Your task to perform on an android device: turn on the 24-hour format for clock Image 0: 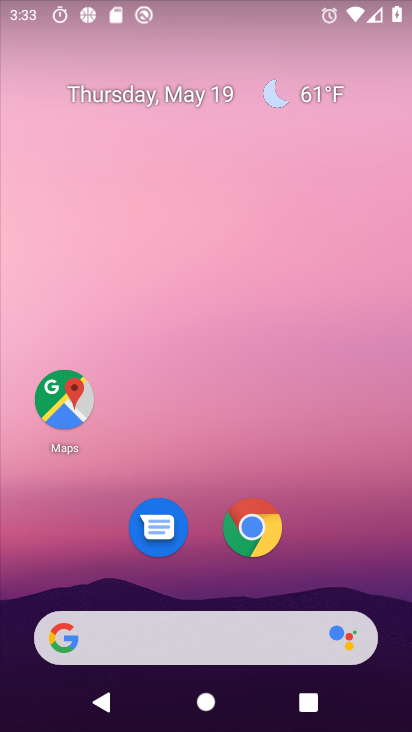
Step 0: drag from (172, 587) to (217, 110)
Your task to perform on an android device: turn on the 24-hour format for clock Image 1: 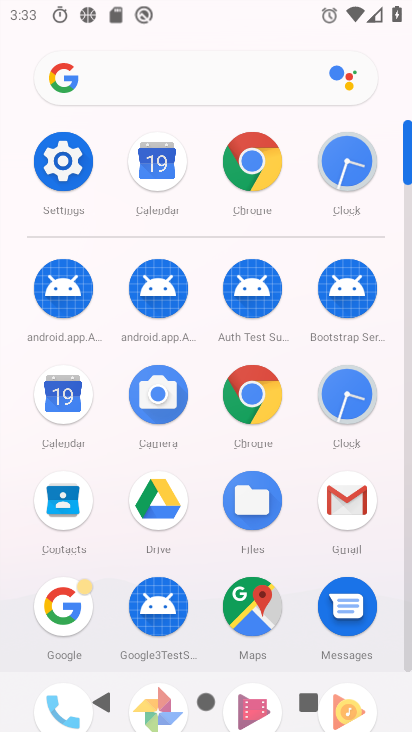
Step 1: click (343, 400)
Your task to perform on an android device: turn on the 24-hour format for clock Image 2: 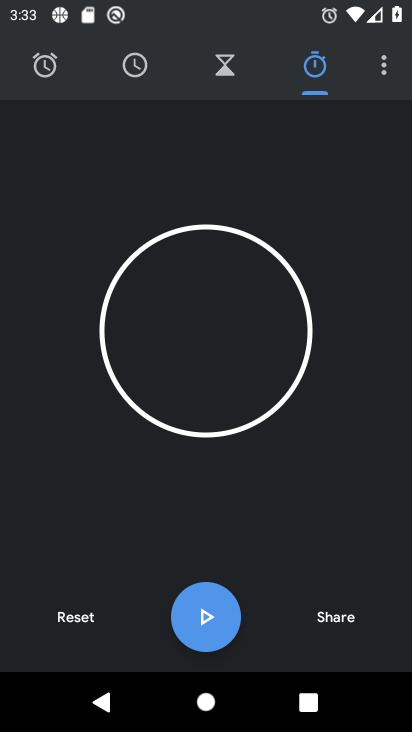
Step 2: click (384, 50)
Your task to perform on an android device: turn on the 24-hour format for clock Image 3: 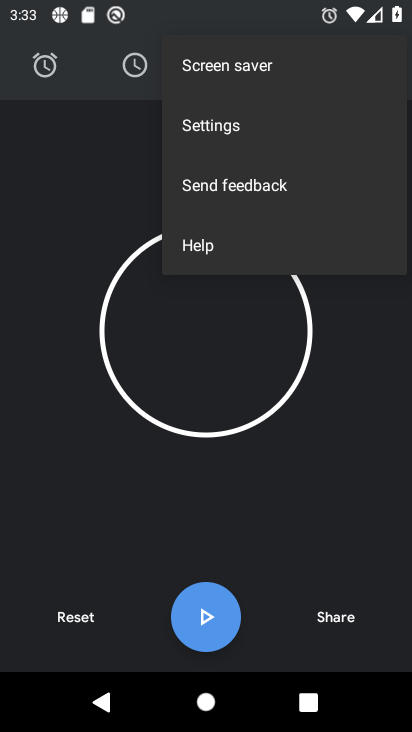
Step 3: click (200, 133)
Your task to perform on an android device: turn on the 24-hour format for clock Image 4: 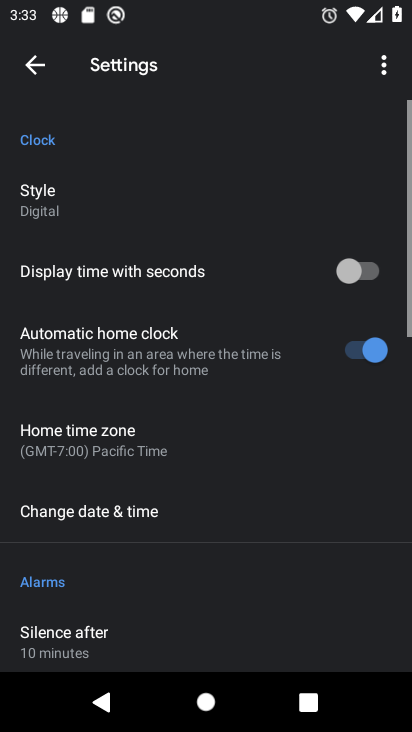
Step 4: drag from (107, 554) to (168, 334)
Your task to perform on an android device: turn on the 24-hour format for clock Image 5: 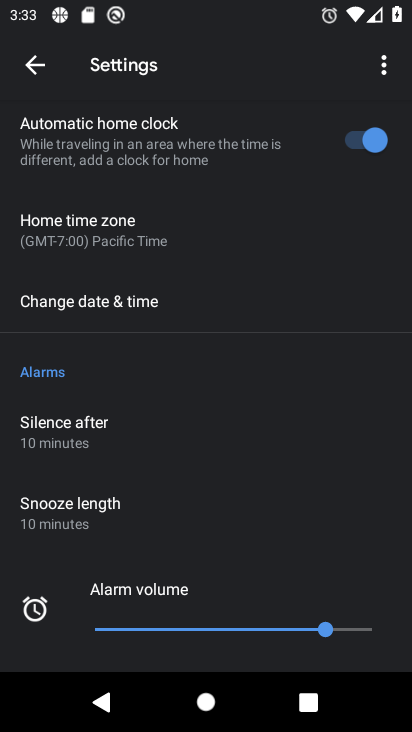
Step 5: click (85, 292)
Your task to perform on an android device: turn on the 24-hour format for clock Image 6: 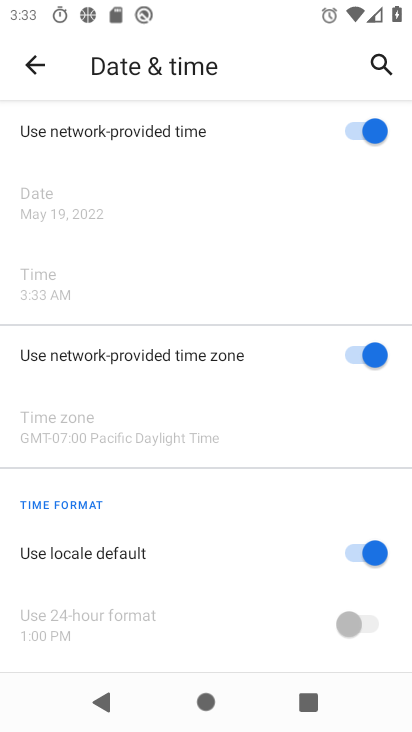
Step 6: click (366, 543)
Your task to perform on an android device: turn on the 24-hour format for clock Image 7: 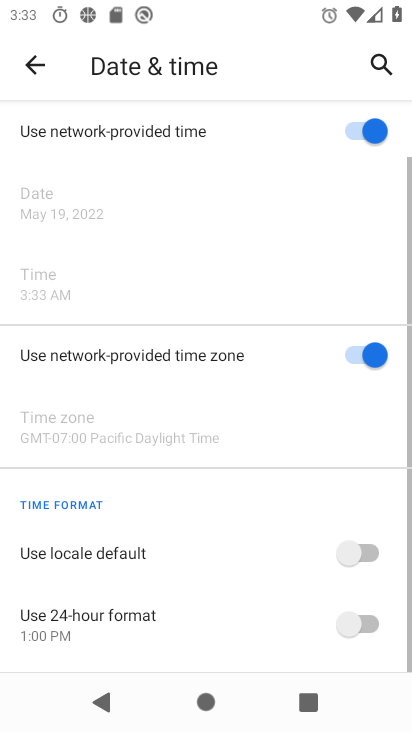
Step 7: click (356, 619)
Your task to perform on an android device: turn on the 24-hour format for clock Image 8: 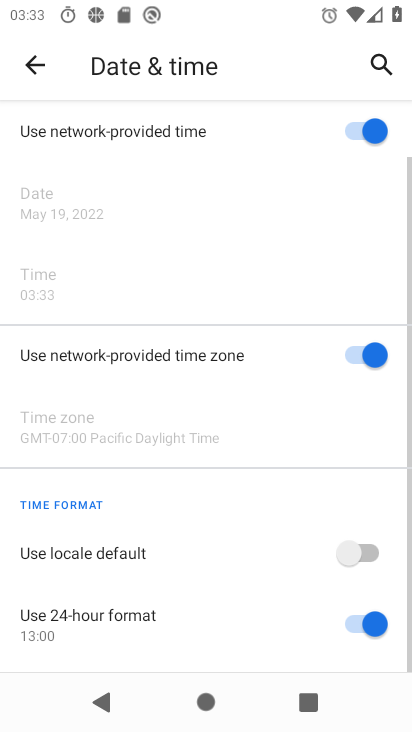
Step 8: task complete